Your task to perform on an android device: Open calendar and show me the third week of next month Image 0: 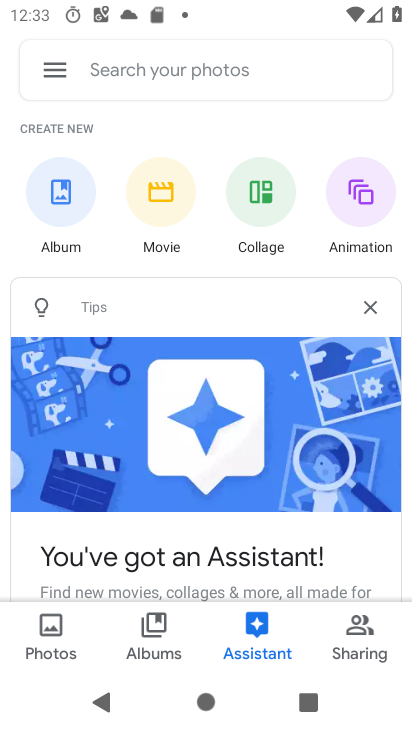
Step 0: press home button
Your task to perform on an android device: Open calendar and show me the third week of next month Image 1: 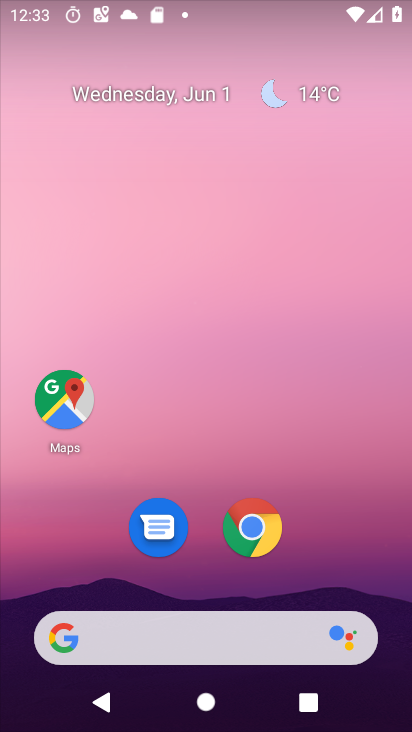
Step 1: drag from (363, 608) to (378, 30)
Your task to perform on an android device: Open calendar and show me the third week of next month Image 2: 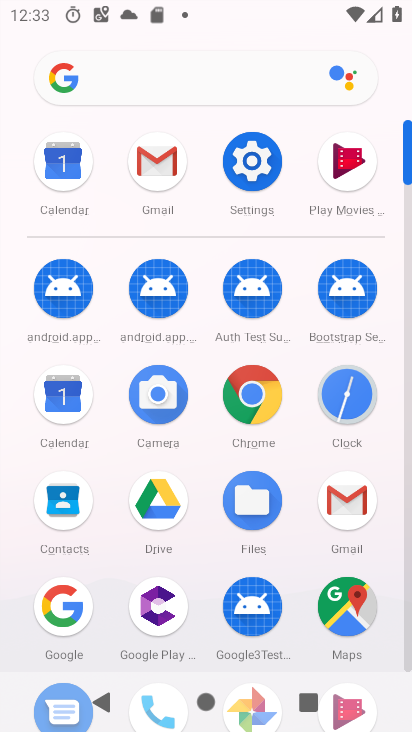
Step 2: click (54, 166)
Your task to perform on an android device: Open calendar and show me the third week of next month Image 3: 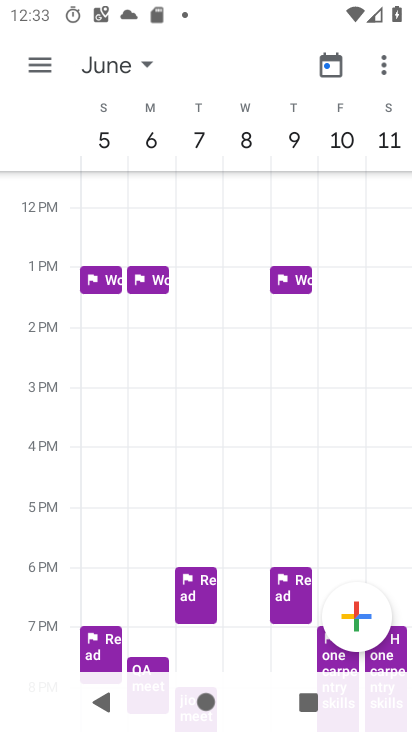
Step 3: click (333, 67)
Your task to perform on an android device: Open calendar and show me the third week of next month Image 4: 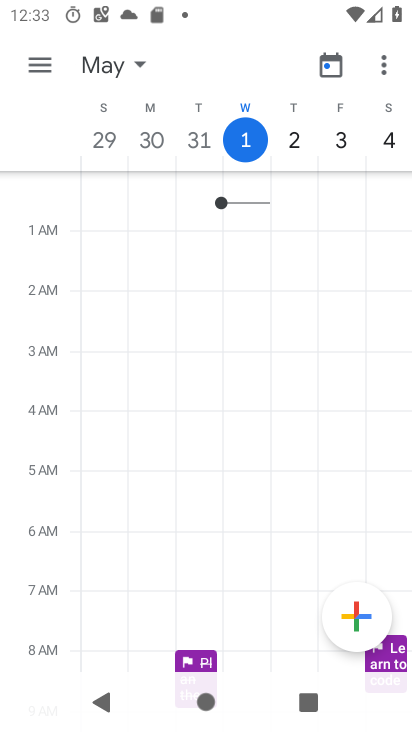
Step 4: click (138, 63)
Your task to perform on an android device: Open calendar and show me the third week of next month Image 5: 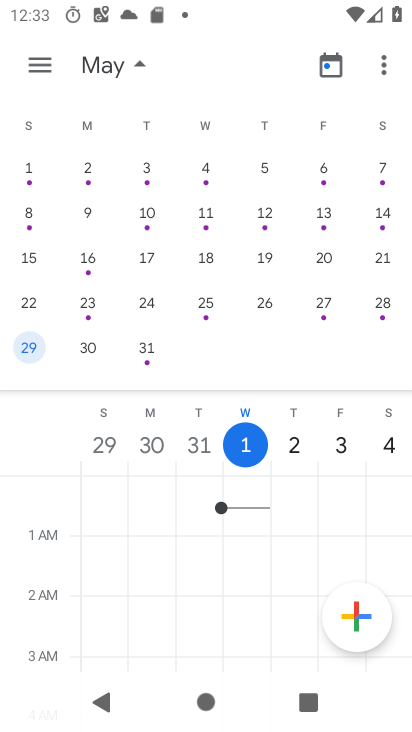
Step 5: click (8, 252)
Your task to perform on an android device: Open calendar and show me the third week of next month Image 6: 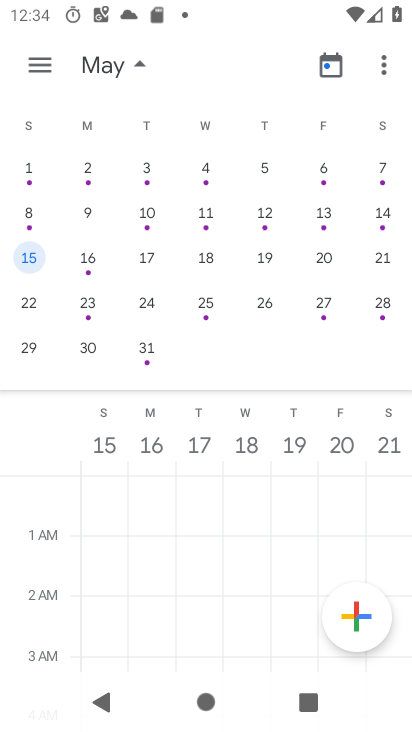
Step 6: click (4, 257)
Your task to perform on an android device: Open calendar and show me the third week of next month Image 7: 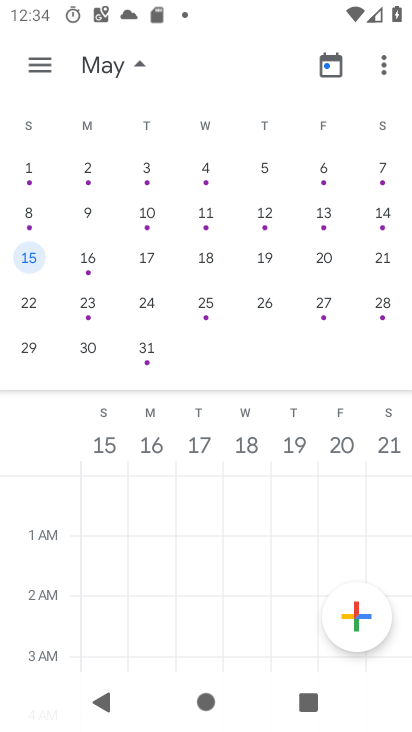
Step 7: drag from (330, 225) to (25, 261)
Your task to perform on an android device: Open calendar and show me the third week of next month Image 8: 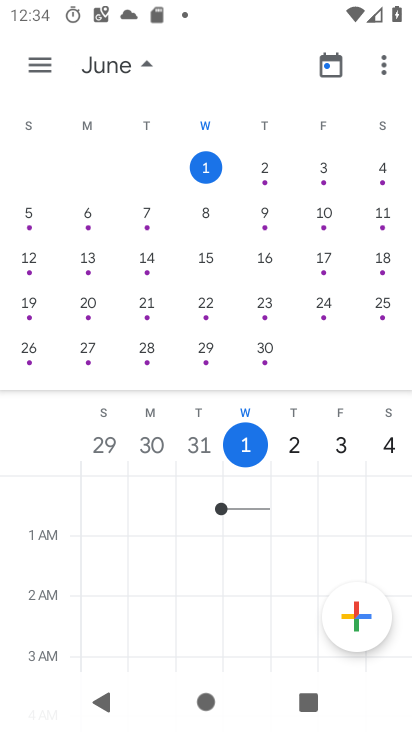
Step 8: drag from (380, 244) to (1, 349)
Your task to perform on an android device: Open calendar and show me the third week of next month Image 9: 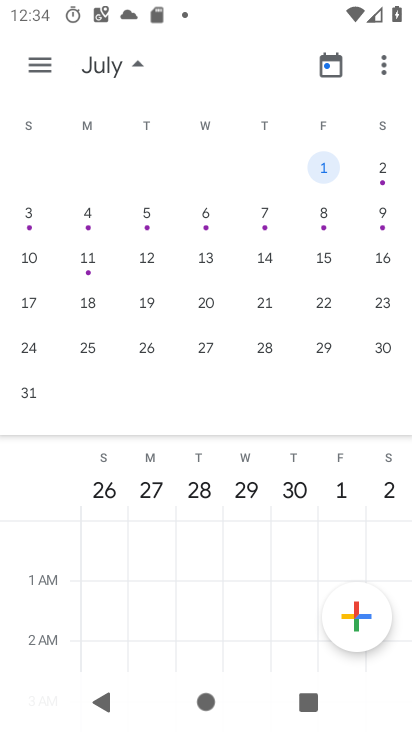
Step 9: click (32, 61)
Your task to perform on an android device: Open calendar and show me the third week of next month Image 10: 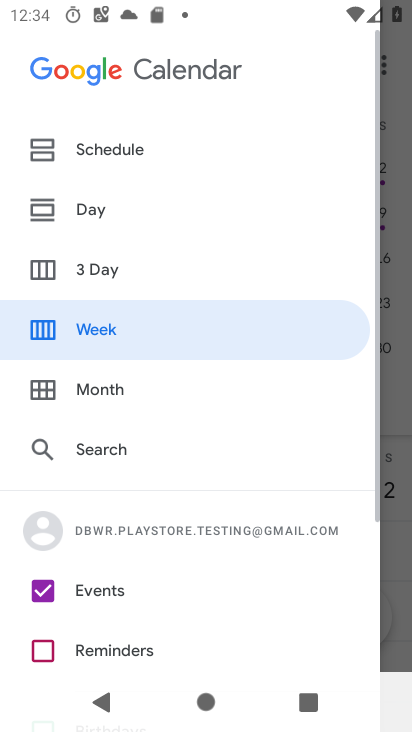
Step 10: click (90, 326)
Your task to perform on an android device: Open calendar and show me the third week of next month Image 11: 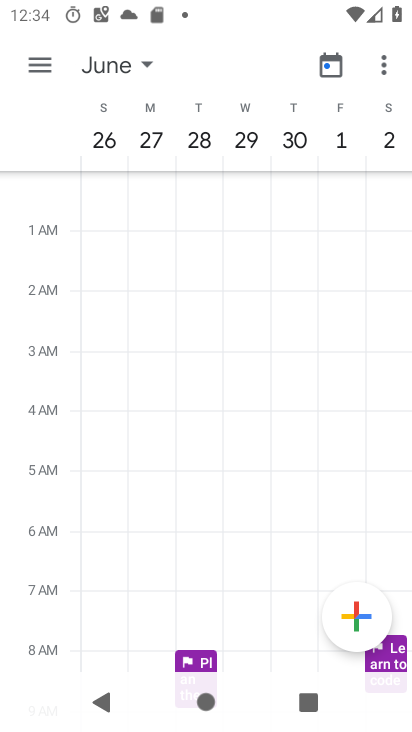
Step 11: task complete